Your task to perform on an android device: open wifi settings Image 0: 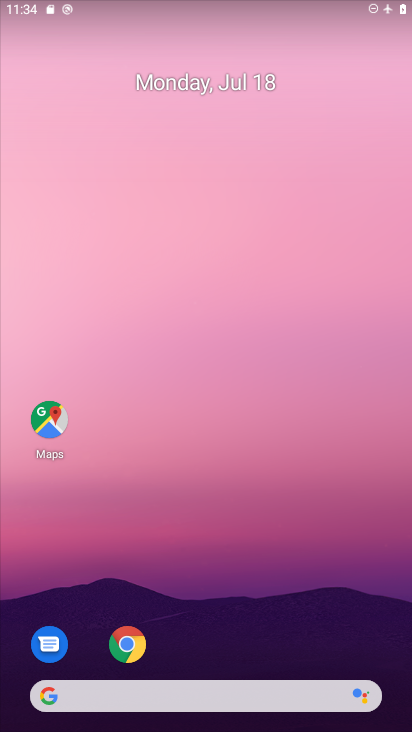
Step 0: drag from (207, 561) to (305, 164)
Your task to perform on an android device: open wifi settings Image 1: 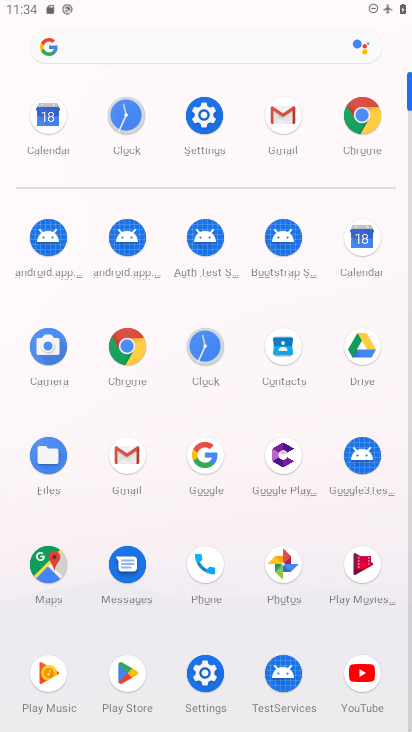
Step 1: click (205, 111)
Your task to perform on an android device: open wifi settings Image 2: 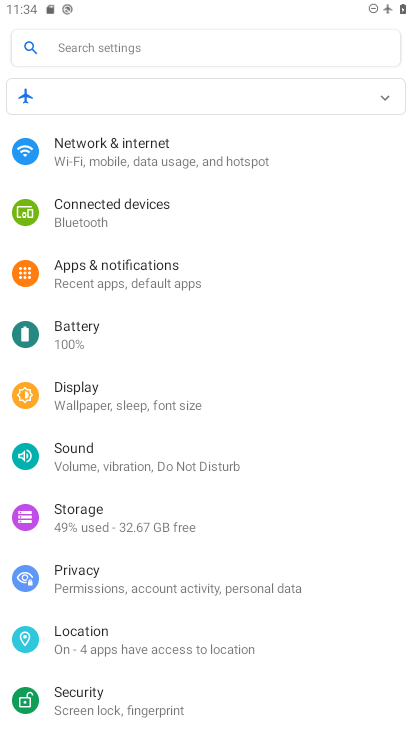
Step 2: click (83, 143)
Your task to perform on an android device: open wifi settings Image 3: 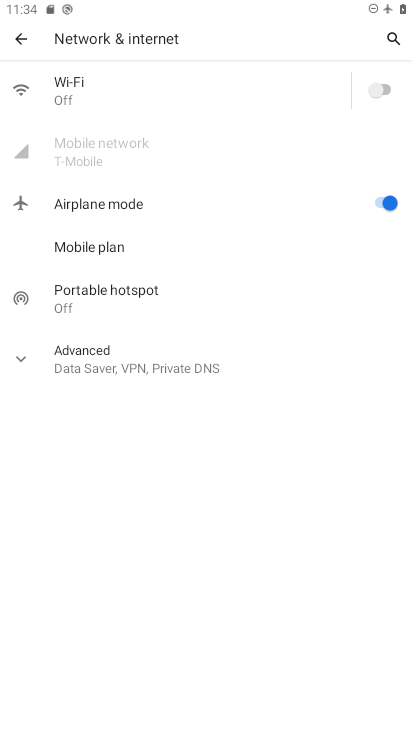
Step 3: click (82, 86)
Your task to perform on an android device: open wifi settings Image 4: 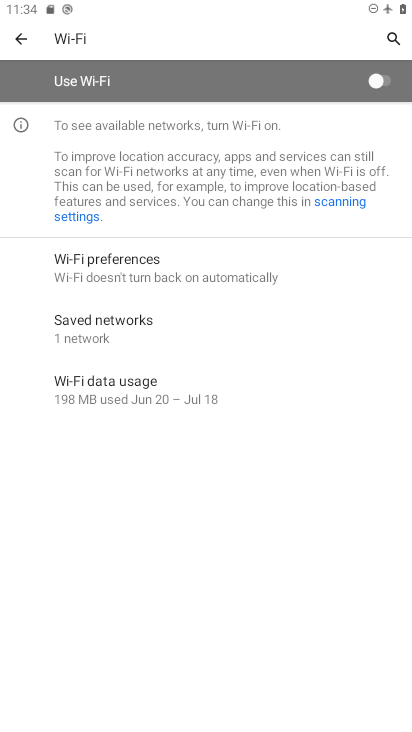
Step 4: task complete